Your task to perform on an android device: turn vacation reply on in the gmail app Image 0: 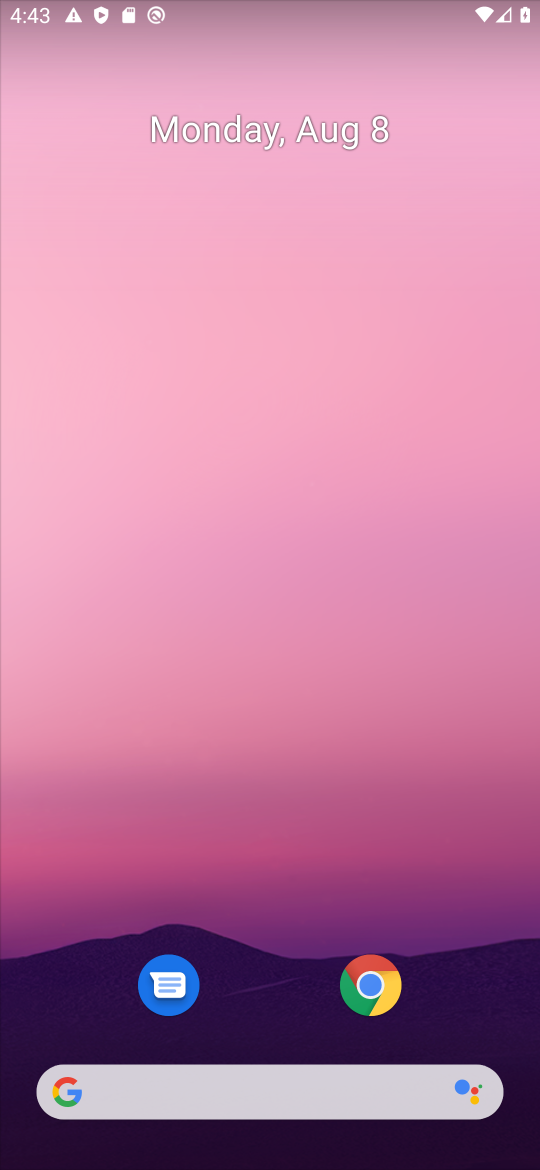
Step 0: drag from (294, 854) to (102, 132)
Your task to perform on an android device: turn vacation reply on in the gmail app Image 1: 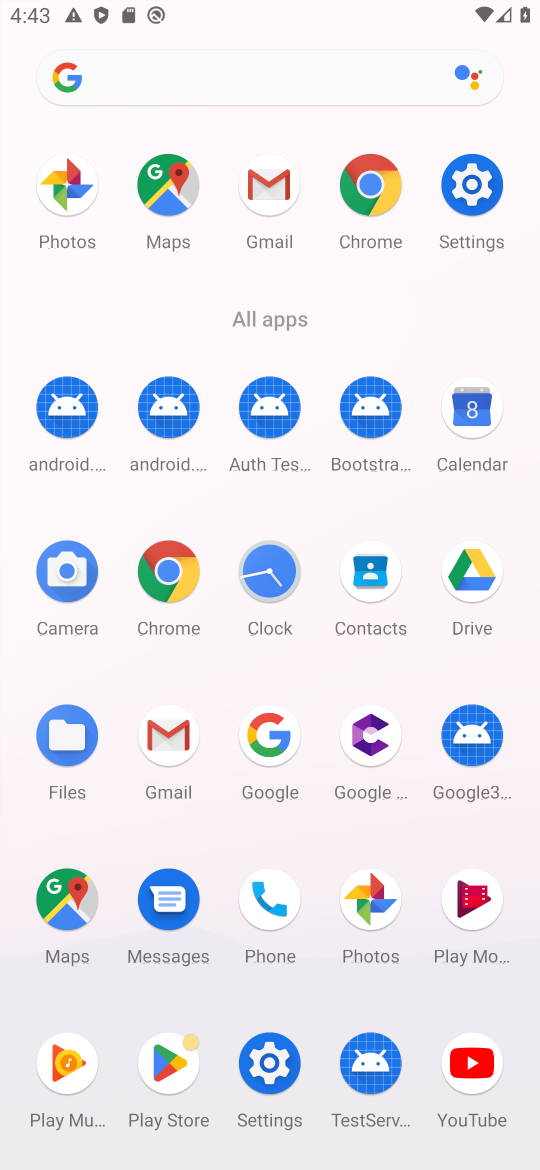
Step 1: click (276, 180)
Your task to perform on an android device: turn vacation reply on in the gmail app Image 2: 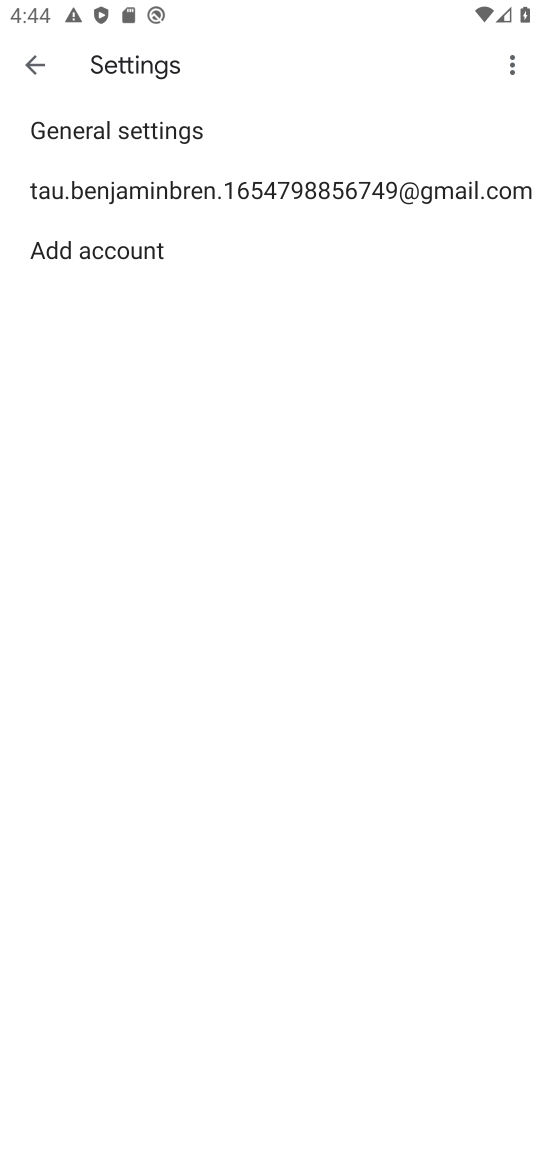
Step 2: press home button
Your task to perform on an android device: turn vacation reply on in the gmail app Image 3: 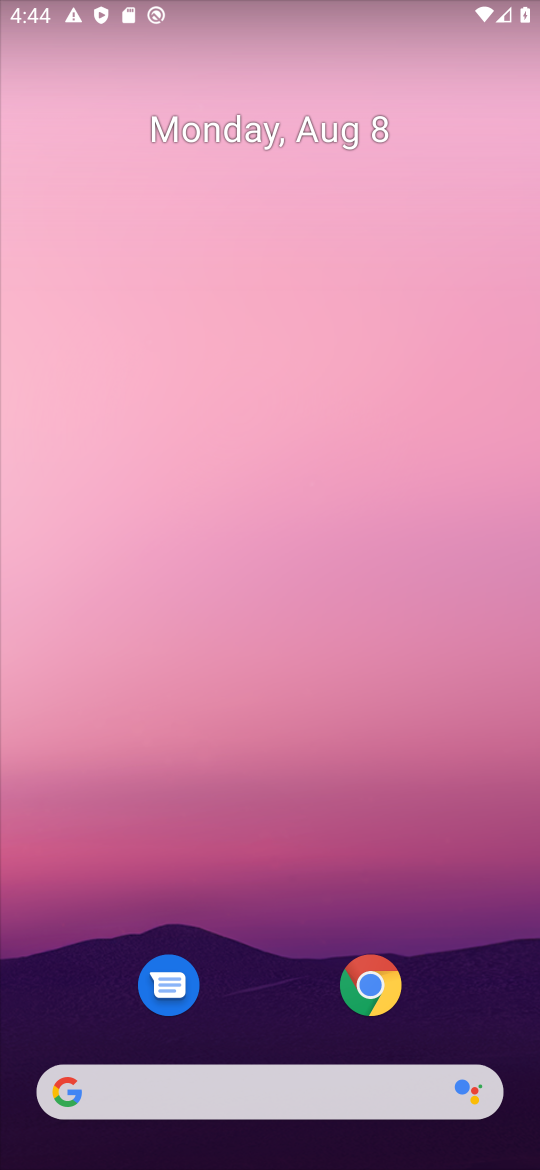
Step 3: drag from (304, 883) to (272, 299)
Your task to perform on an android device: turn vacation reply on in the gmail app Image 4: 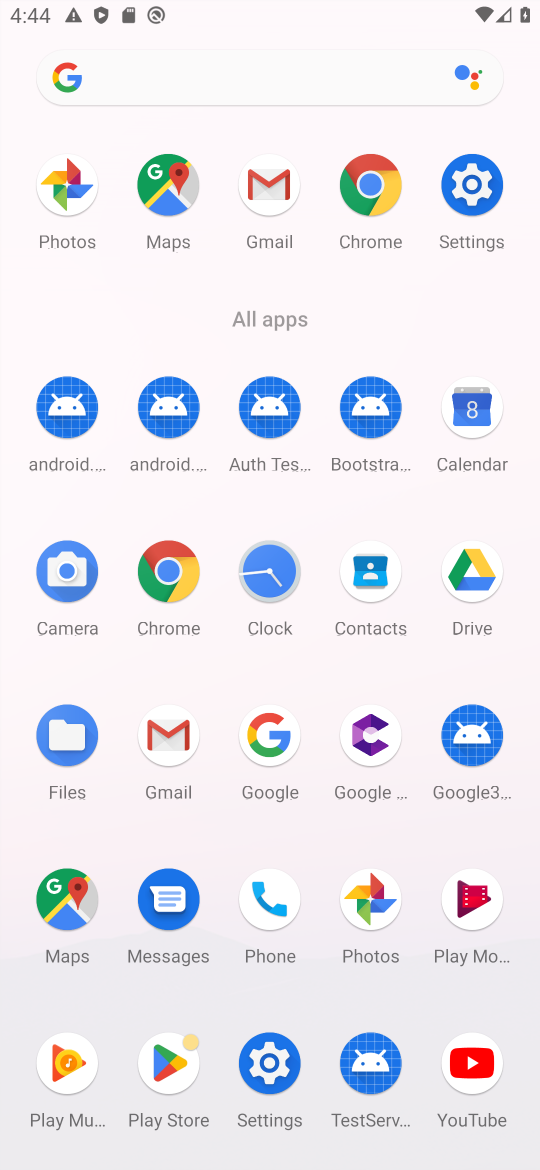
Step 4: click (276, 195)
Your task to perform on an android device: turn vacation reply on in the gmail app Image 5: 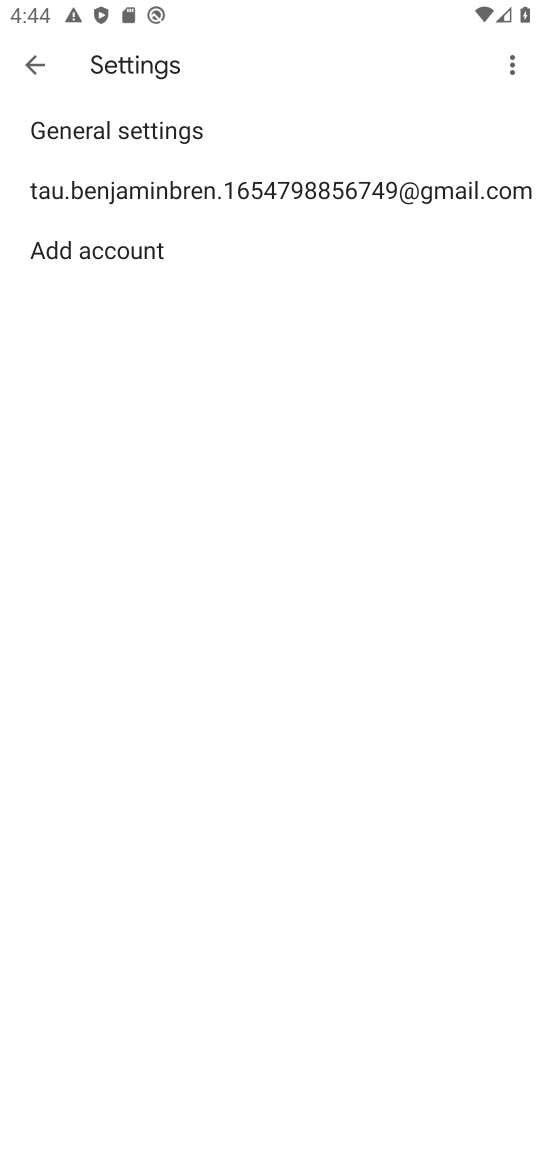
Step 5: task complete